Your task to perform on an android device: change the clock display to analog Image 0: 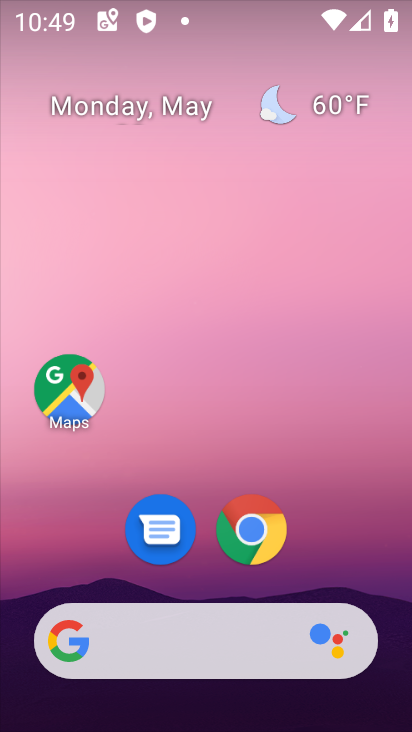
Step 0: drag from (341, 535) to (298, 18)
Your task to perform on an android device: change the clock display to analog Image 1: 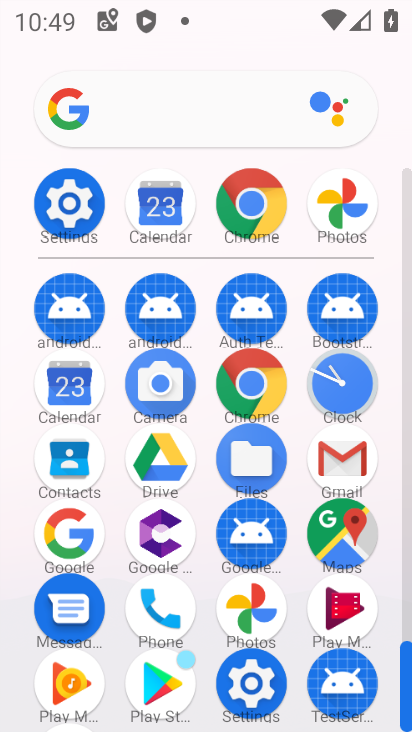
Step 1: click (338, 391)
Your task to perform on an android device: change the clock display to analog Image 2: 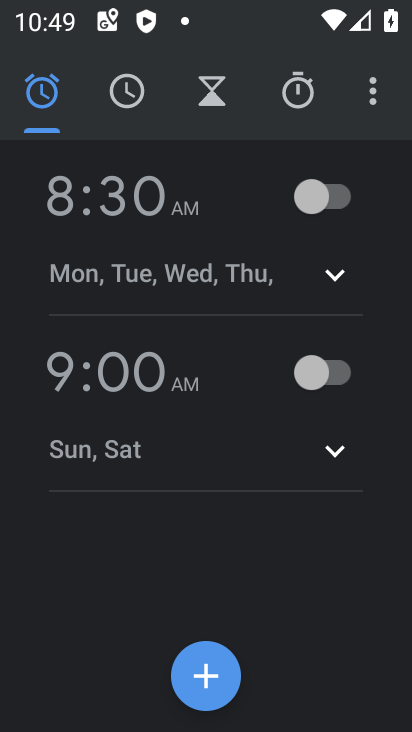
Step 2: click (372, 97)
Your task to perform on an android device: change the clock display to analog Image 3: 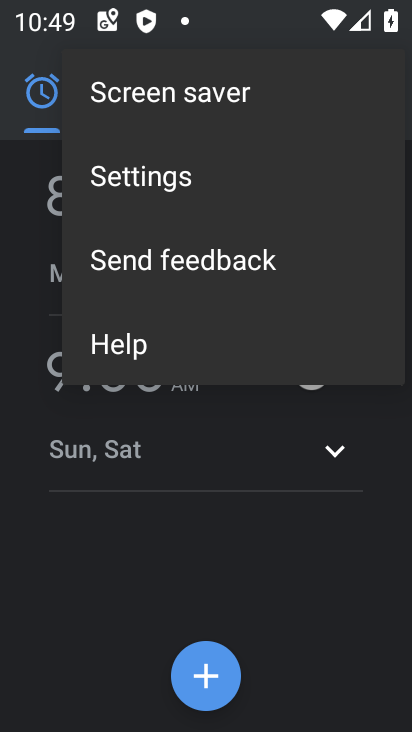
Step 3: click (165, 186)
Your task to perform on an android device: change the clock display to analog Image 4: 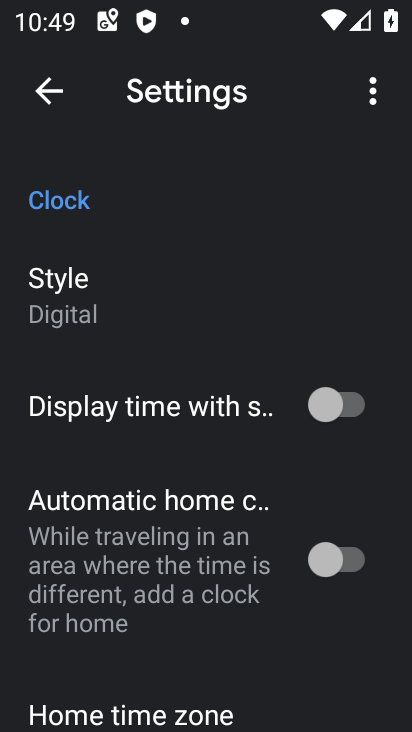
Step 4: click (56, 286)
Your task to perform on an android device: change the clock display to analog Image 5: 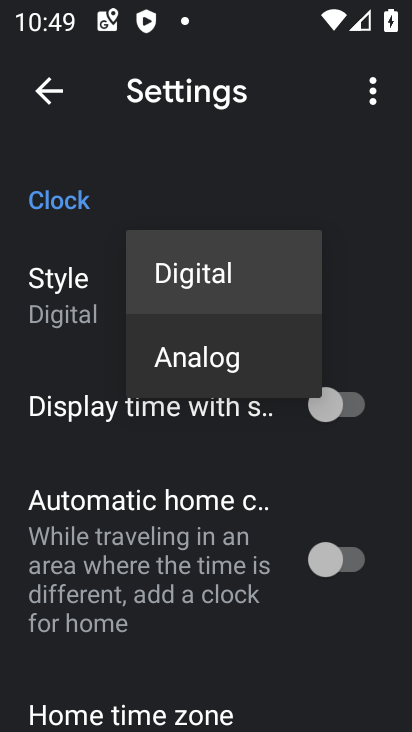
Step 5: click (189, 362)
Your task to perform on an android device: change the clock display to analog Image 6: 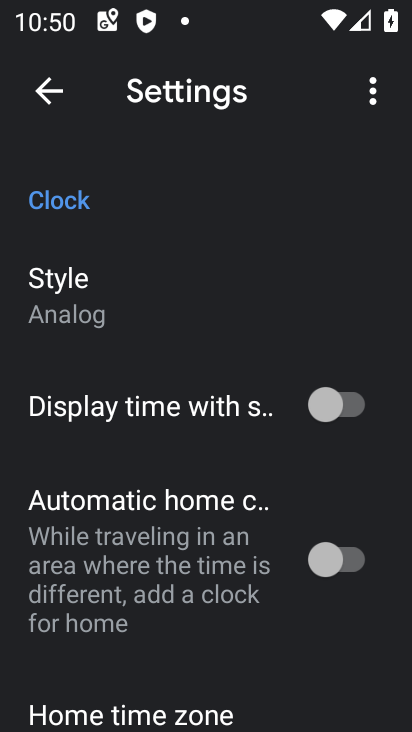
Step 6: task complete